Your task to perform on an android device: search for starred emails in the gmail app Image 0: 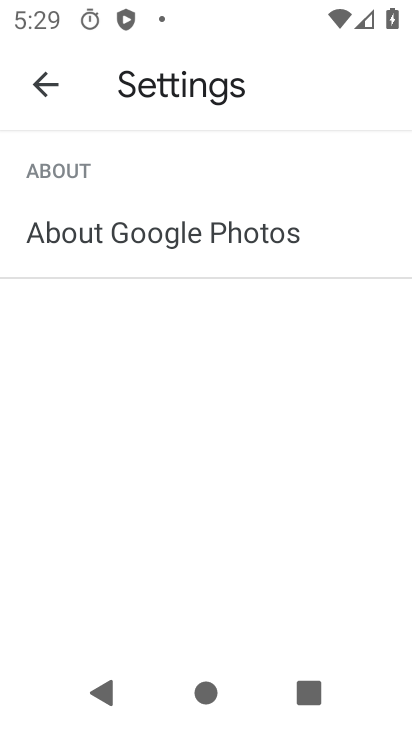
Step 0: press home button
Your task to perform on an android device: search for starred emails in the gmail app Image 1: 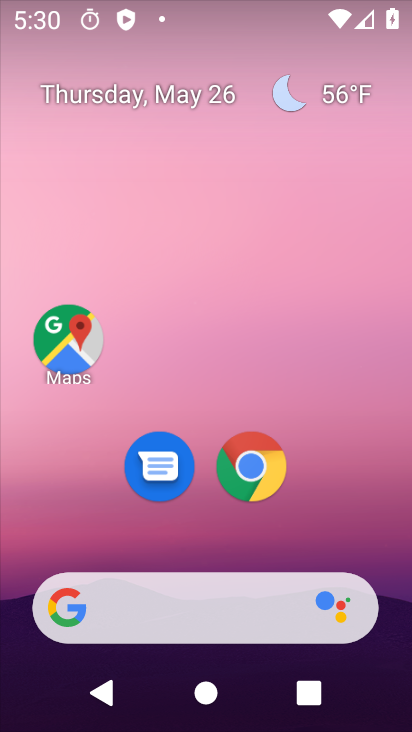
Step 1: drag from (257, 542) to (259, 145)
Your task to perform on an android device: search for starred emails in the gmail app Image 2: 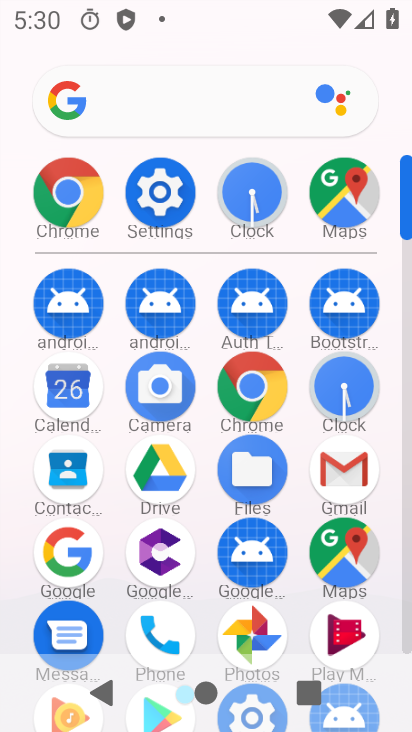
Step 2: click (330, 458)
Your task to perform on an android device: search for starred emails in the gmail app Image 3: 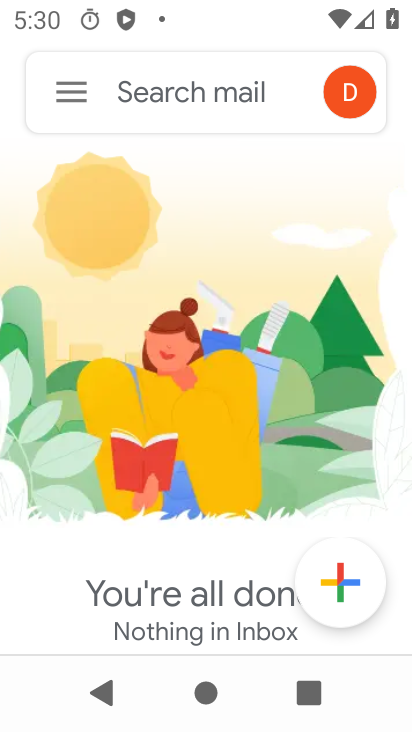
Step 3: click (66, 90)
Your task to perform on an android device: search for starred emails in the gmail app Image 4: 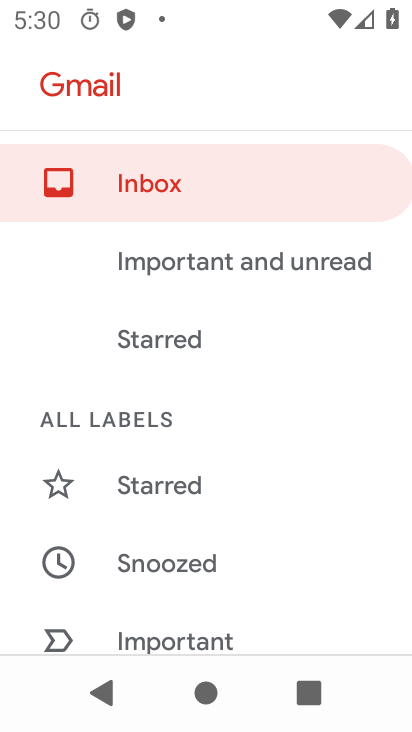
Step 4: drag from (252, 582) to (269, 346)
Your task to perform on an android device: search for starred emails in the gmail app Image 5: 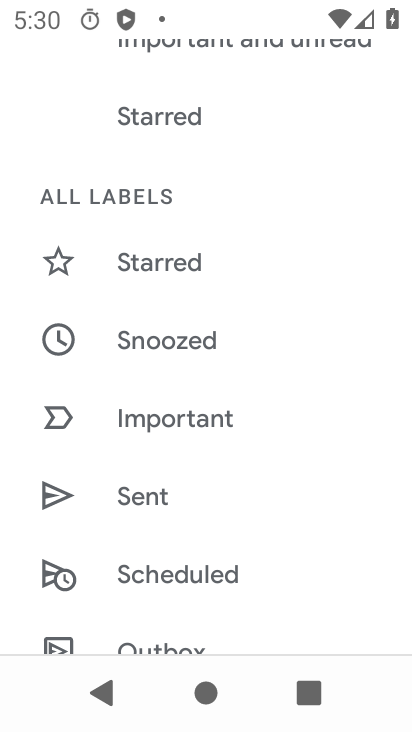
Step 5: click (188, 256)
Your task to perform on an android device: search for starred emails in the gmail app Image 6: 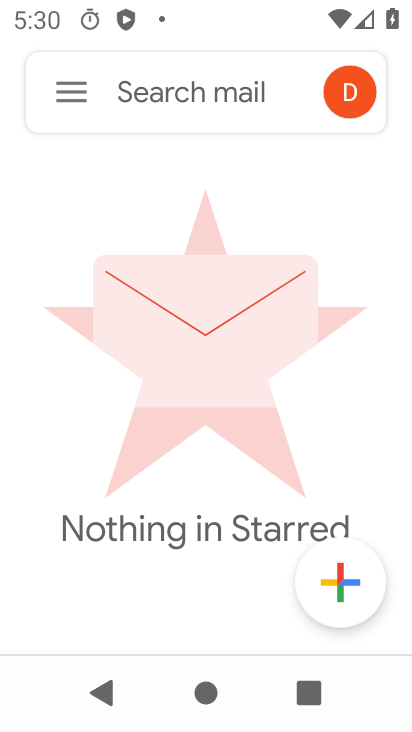
Step 6: task complete